Your task to perform on an android device: find which apps use the phone's location Image 0: 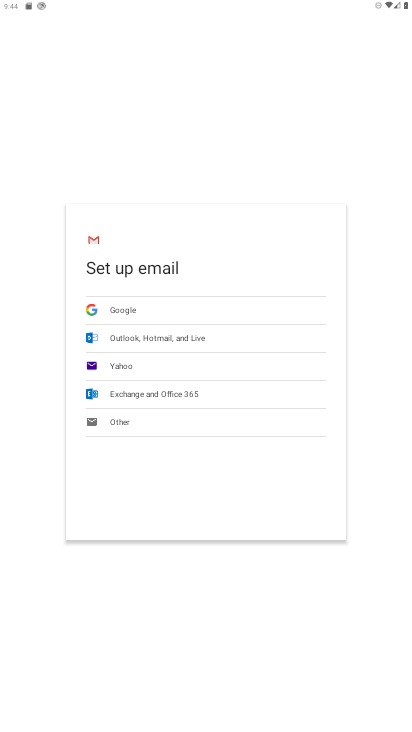
Step 0: press home button
Your task to perform on an android device: find which apps use the phone's location Image 1: 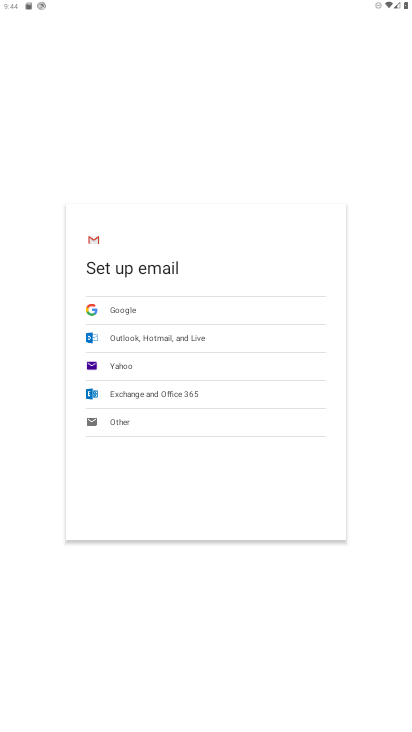
Step 1: press home button
Your task to perform on an android device: find which apps use the phone's location Image 2: 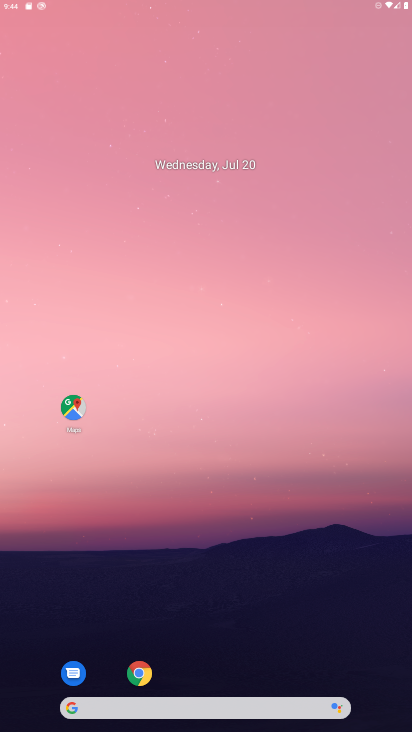
Step 2: drag from (262, 377) to (290, 143)
Your task to perform on an android device: find which apps use the phone's location Image 3: 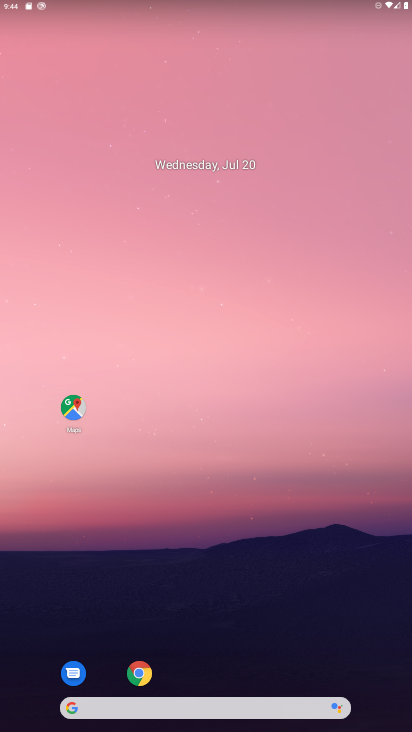
Step 3: drag from (229, 637) to (317, 95)
Your task to perform on an android device: find which apps use the phone's location Image 4: 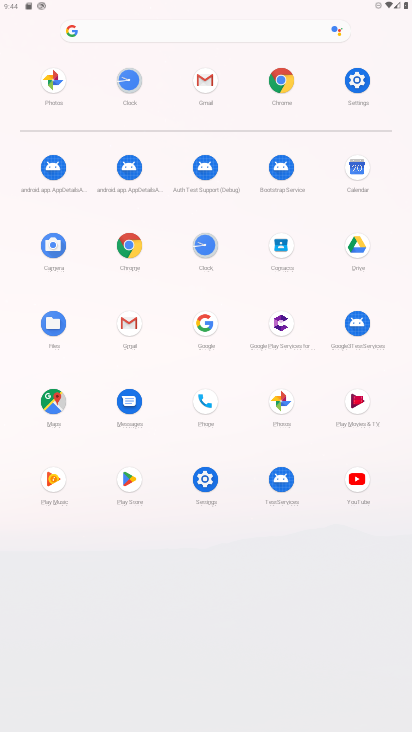
Step 4: click (203, 473)
Your task to perform on an android device: find which apps use the phone's location Image 5: 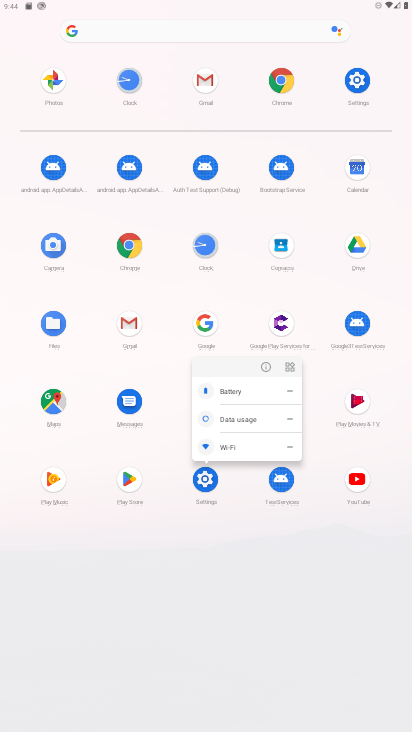
Step 5: click (264, 360)
Your task to perform on an android device: find which apps use the phone's location Image 6: 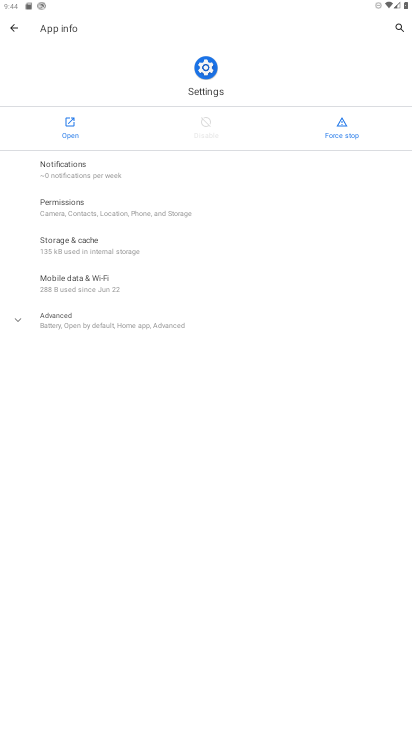
Step 6: click (75, 128)
Your task to perform on an android device: find which apps use the phone's location Image 7: 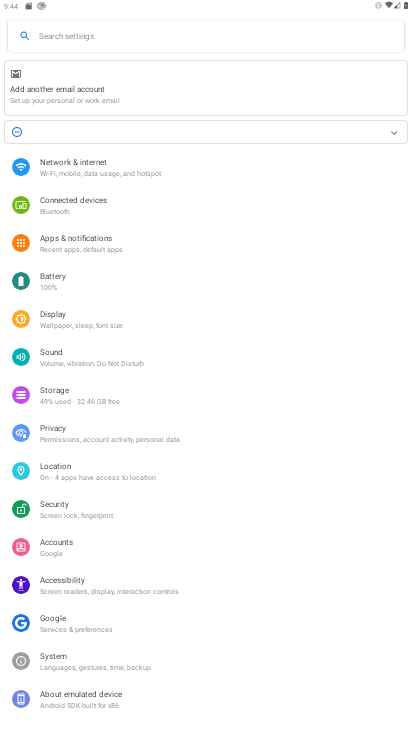
Step 7: click (63, 468)
Your task to perform on an android device: find which apps use the phone's location Image 8: 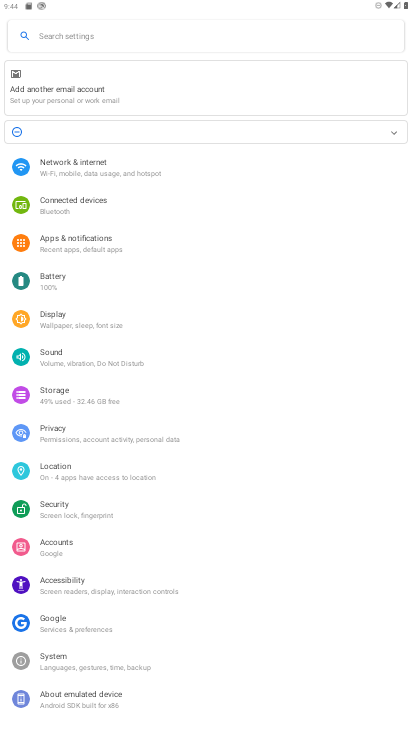
Step 8: click (62, 467)
Your task to perform on an android device: find which apps use the phone's location Image 9: 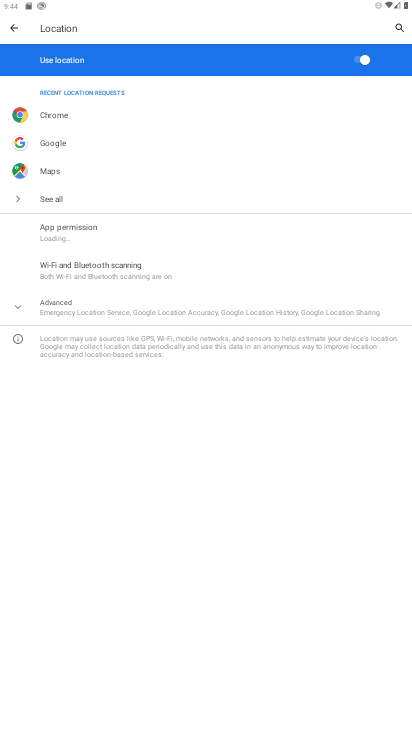
Step 9: click (111, 229)
Your task to perform on an android device: find which apps use the phone's location Image 10: 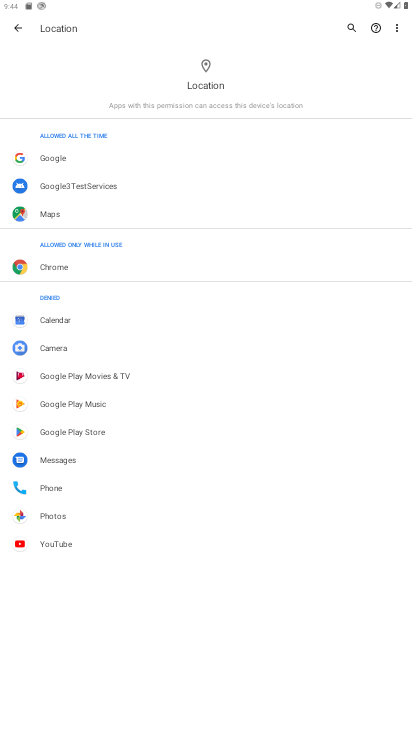
Step 10: task complete